Your task to perform on an android device: open sync settings in chrome Image 0: 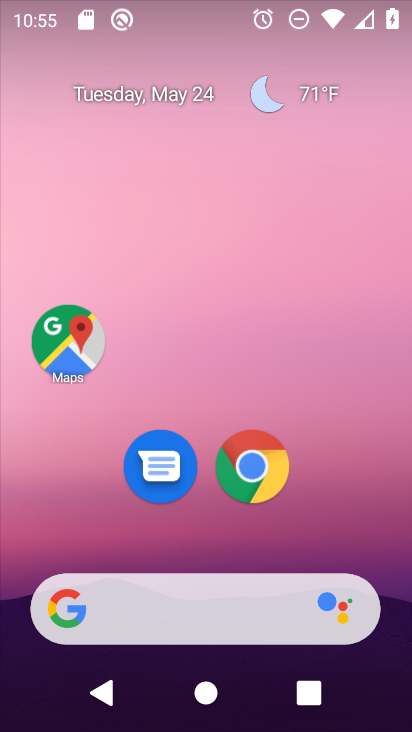
Step 0: click (256, 461)
Your task to perform on an android device: open sync settings in chrome Image 1: 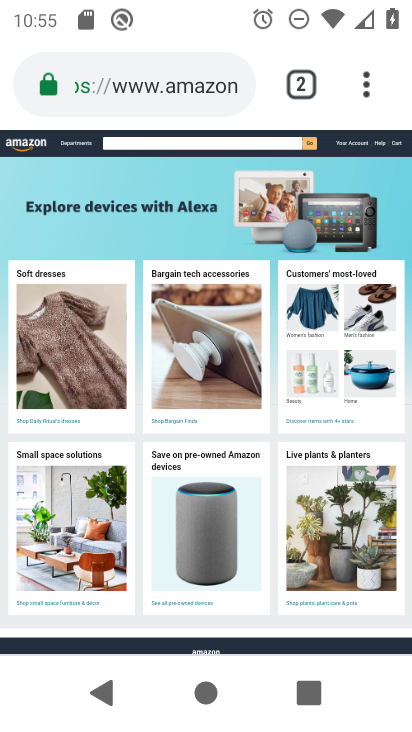
Step 1: click (360, 85)
Your task to perform on an android device: open sync settings in chrome Image 2: 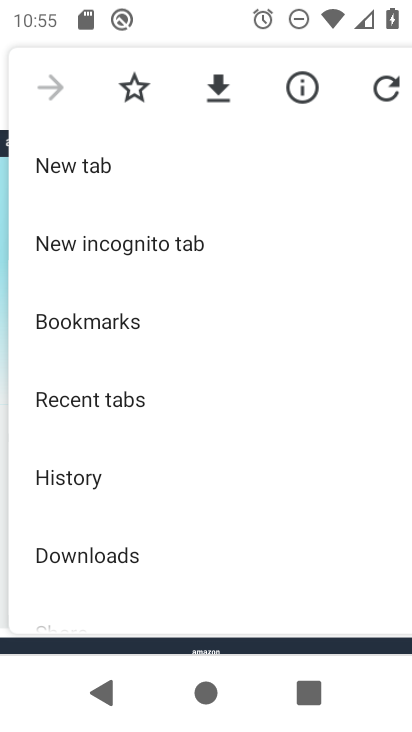
Step 2: drag from (149, 536) to (235, 215)
Your task to perform on an android device: open sync settings in chrome Image 3: 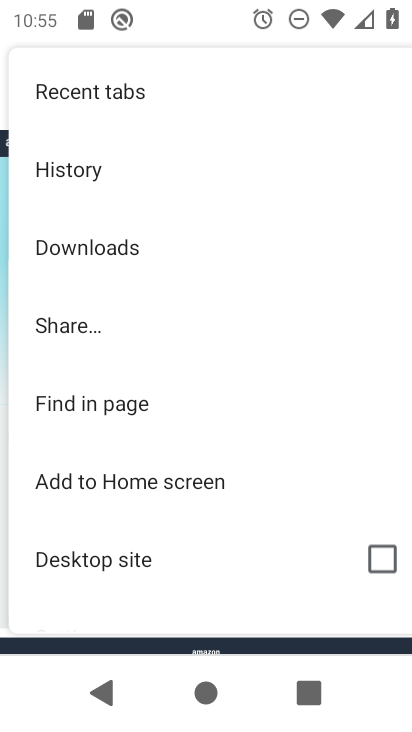
Step 3: drag from (146, 461) to (209, 213)
Your task to perform on an android device: open sync settings in chrome Image 4: 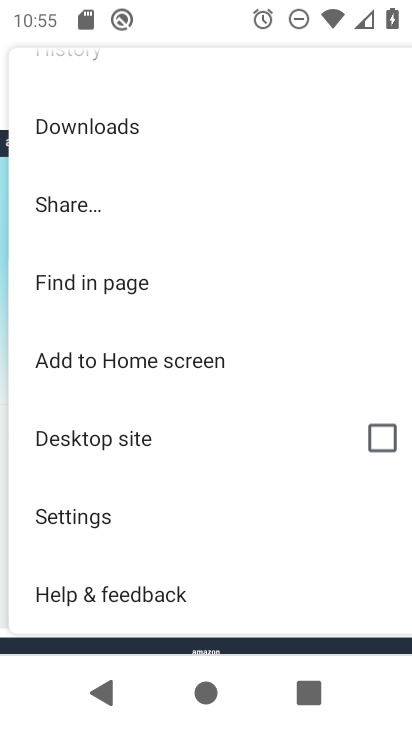
Step 4: click (97, 521)
Your task to perform on an android device: open sync settings in chrome Image 5: 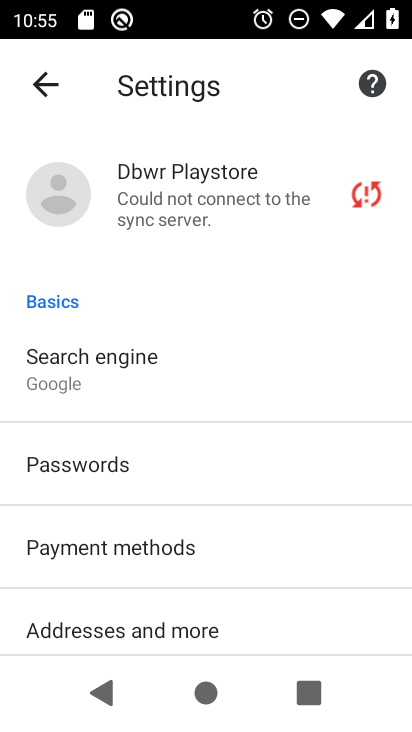
Step 5: click (176, 206)
Your task to perform on an android device: open sync settings in chrome Image 6: 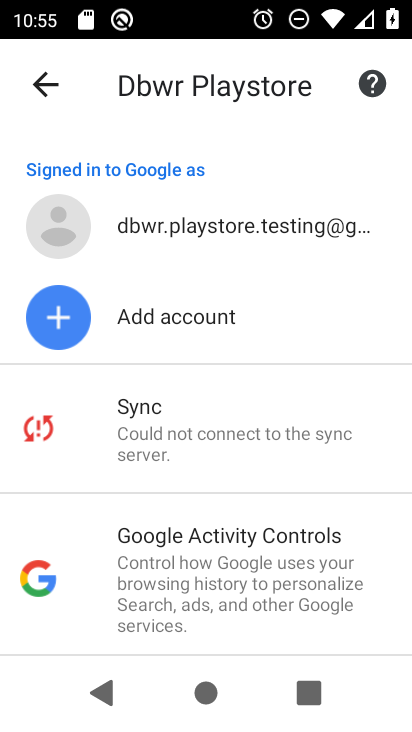
Step 6: click (202, 436)
Your task to perform on an android device: open sync settings in chrome Image 7: 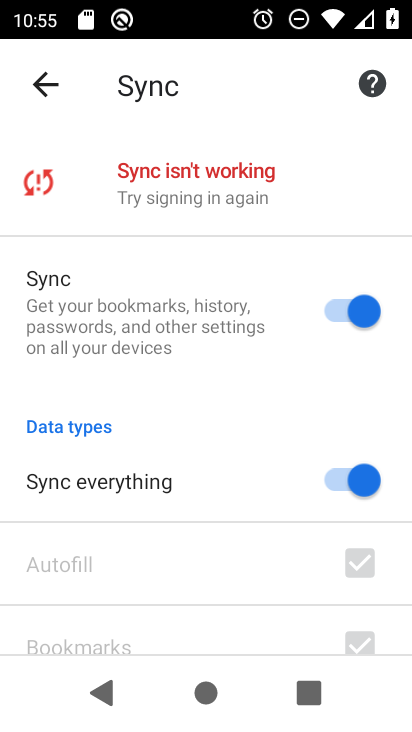
Step 7: task complete